Your task to perform on an android device: all mails in gmail Image 0: 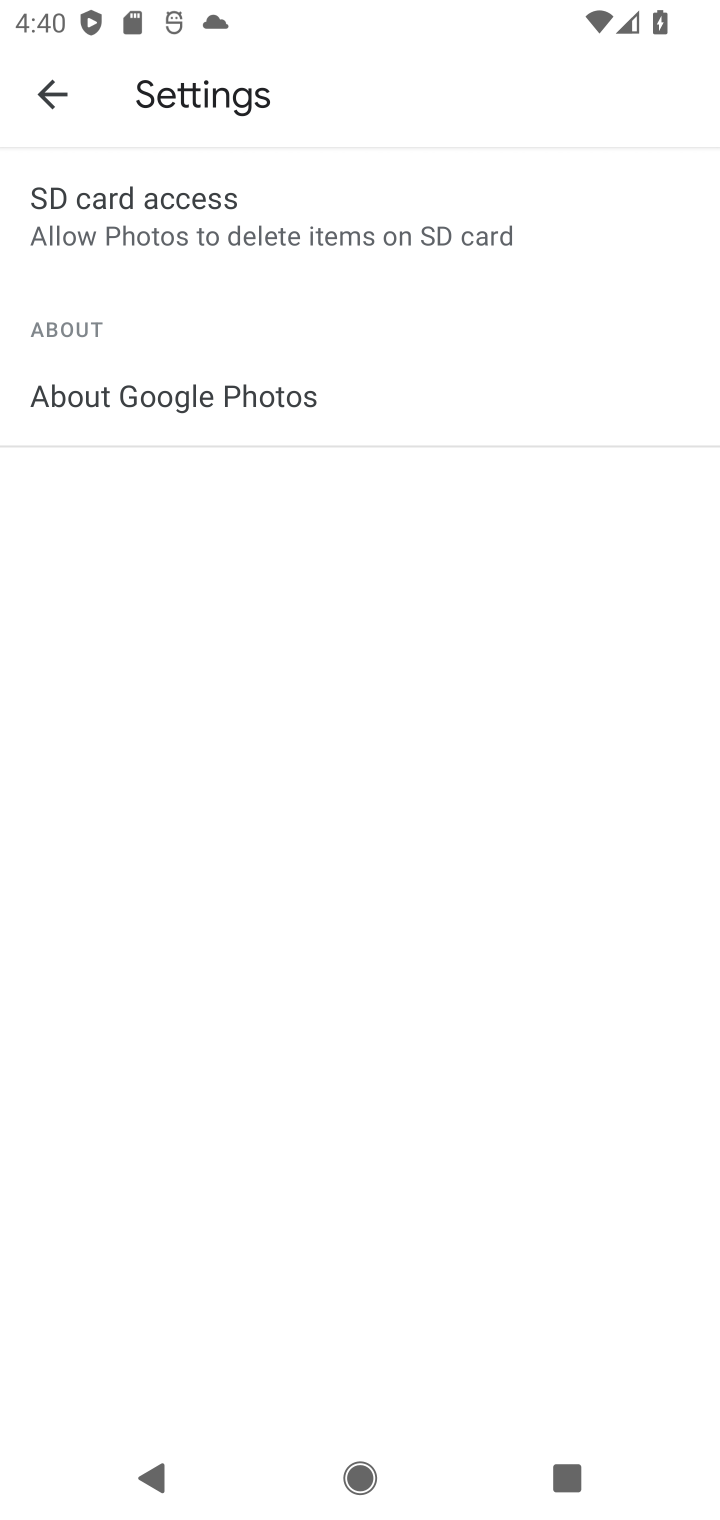
Step 0: press home button
Your task to perform on an android device: all mails in gmail Image 1: 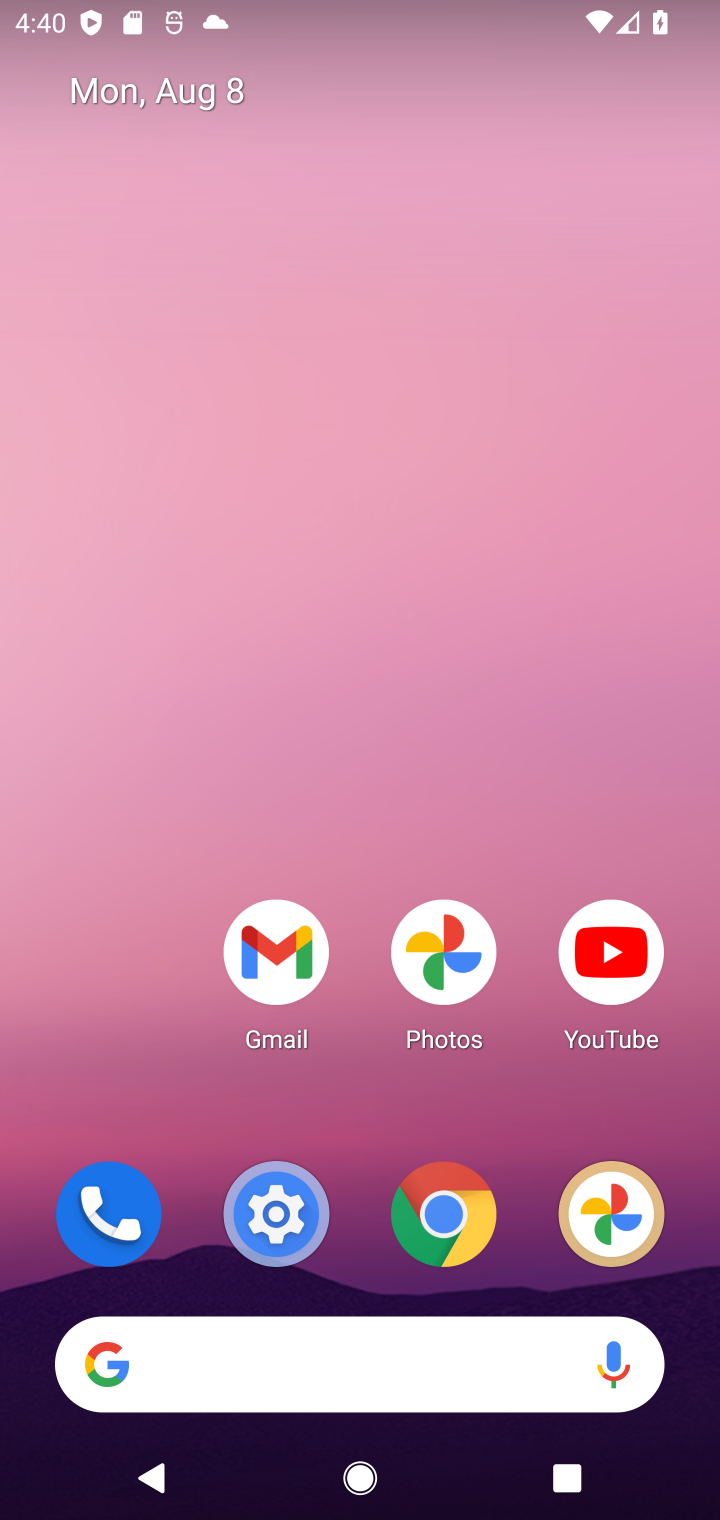
Step 1: drag from (354, 1258) to (354, 126)
Your task to perform on an android device: all mails in gmail Image 2: 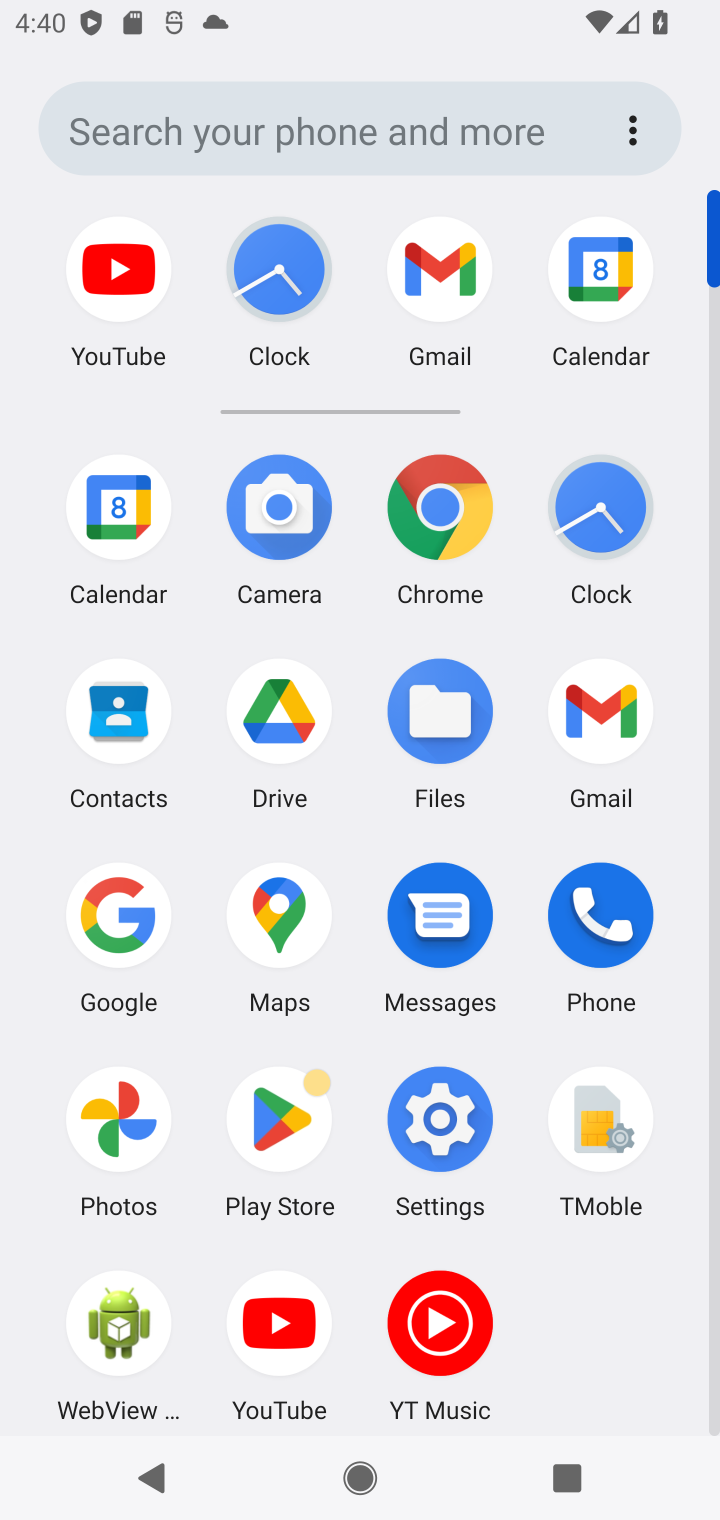
Step 2: click (594, 721)
Your task to perform on an android device: all mails in gmail Image 3: 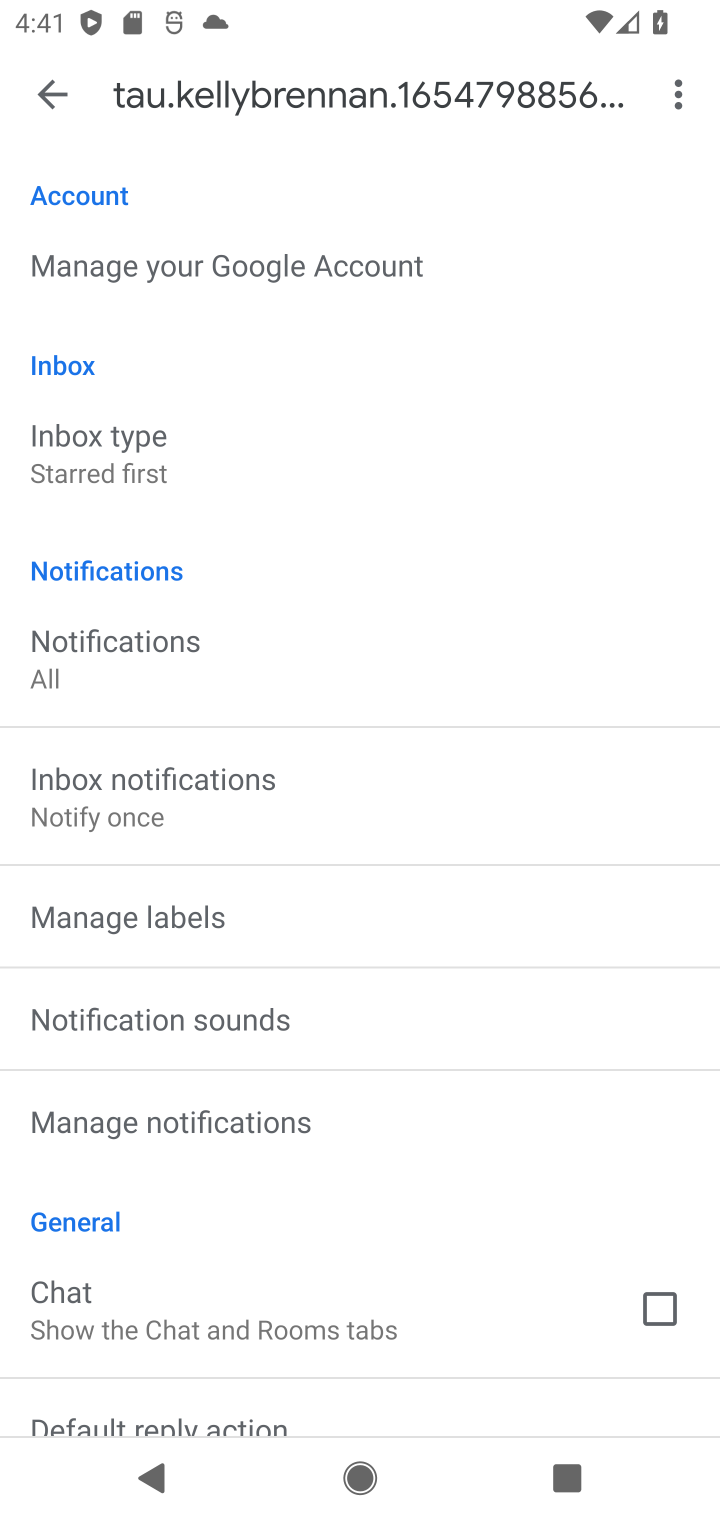
Step 3: click (41, 91)
Your task to perform on an android device: all mails in gmail Image 4: 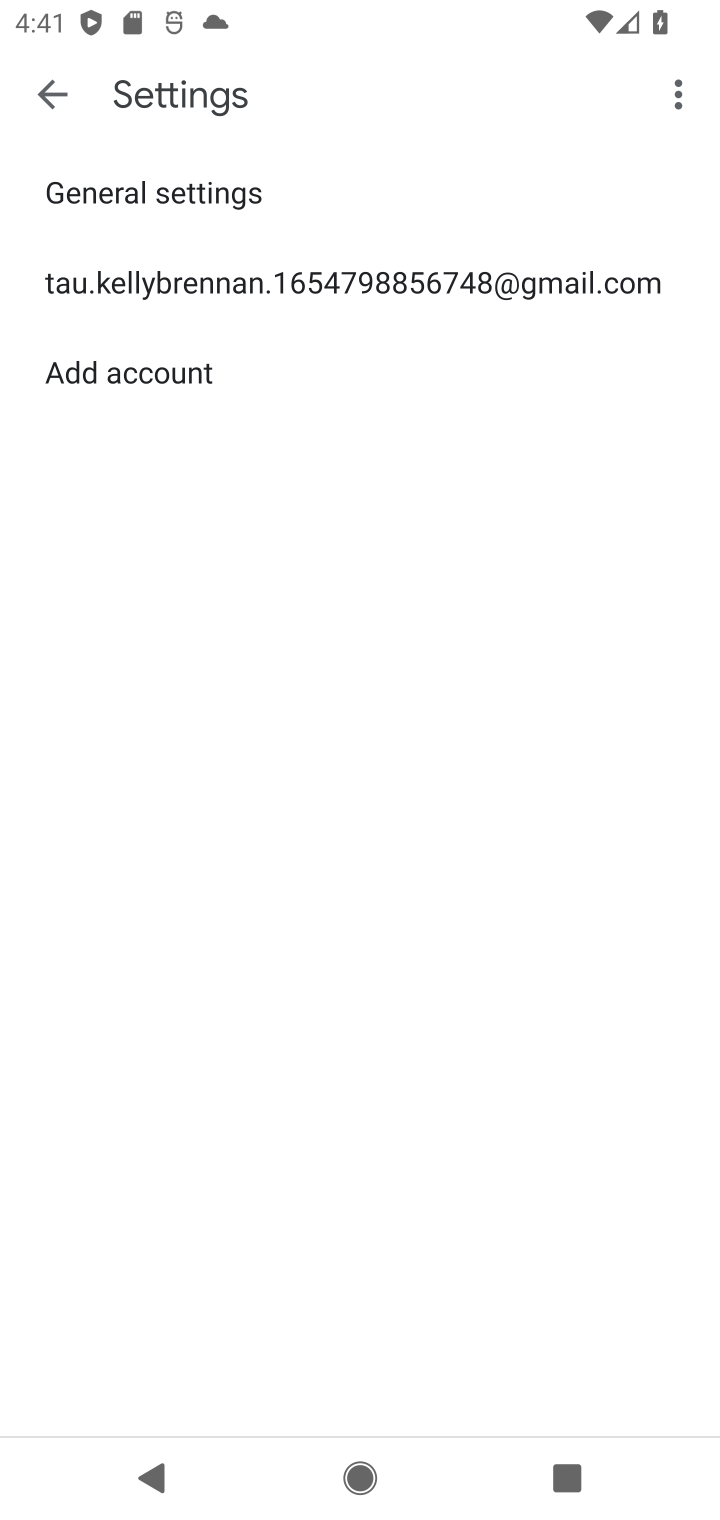
Step 4: click (53, 80)
Your task to perform on an android device: all mails in gmail Image 5: 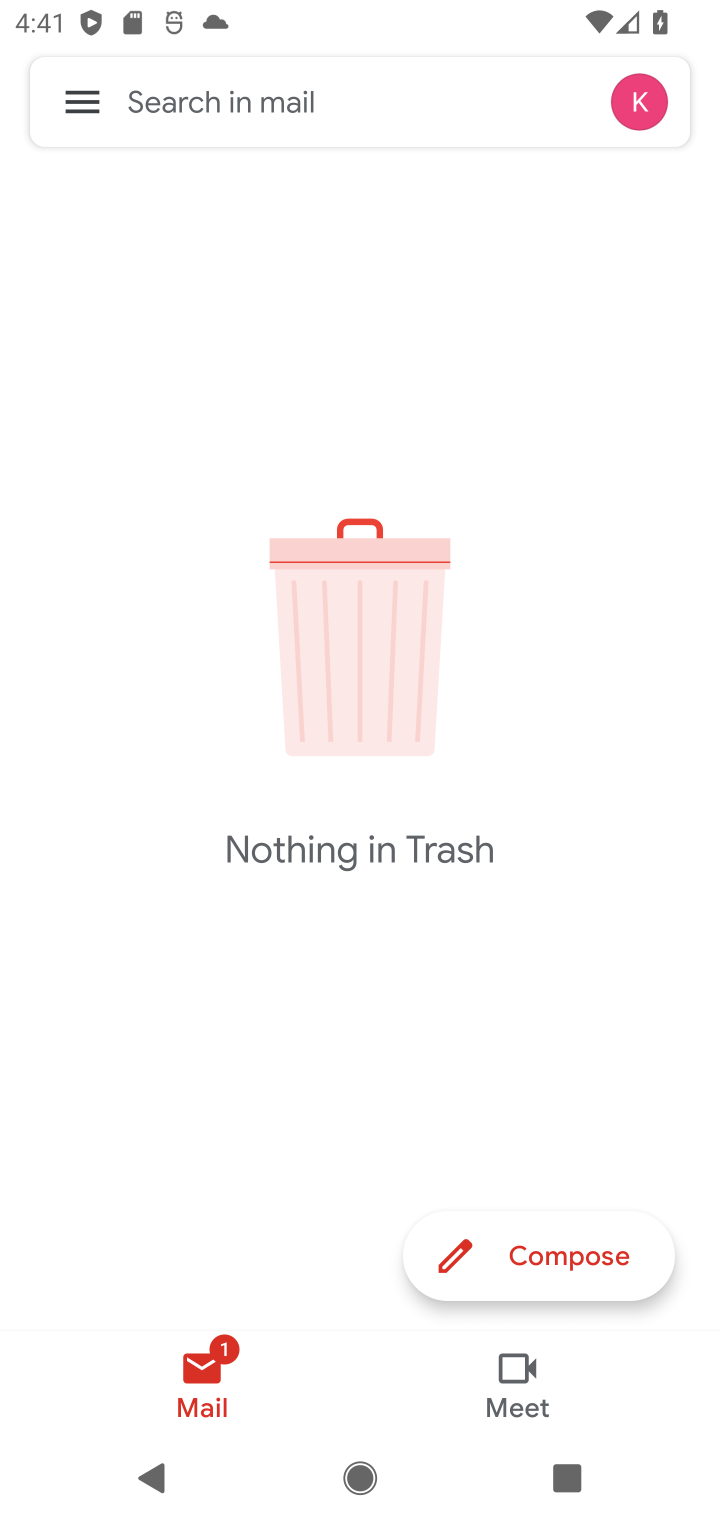
Step 5: click (86, 98)
Your task to perform on an android device: all mails in gmail Image 6: 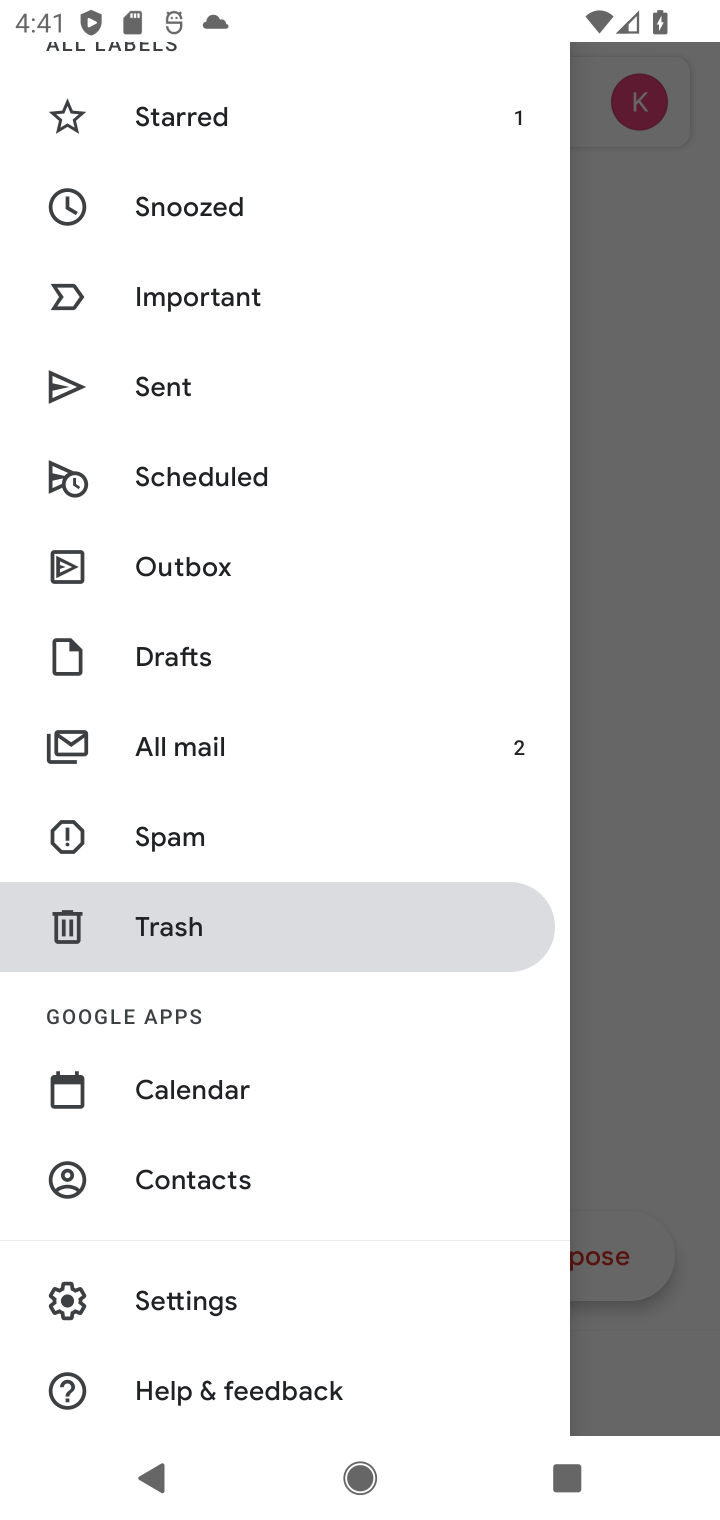
Step 6: drag from (202, 194) to (198, 698)
Your task to perform on an android device: all mails in gmail Image 7: 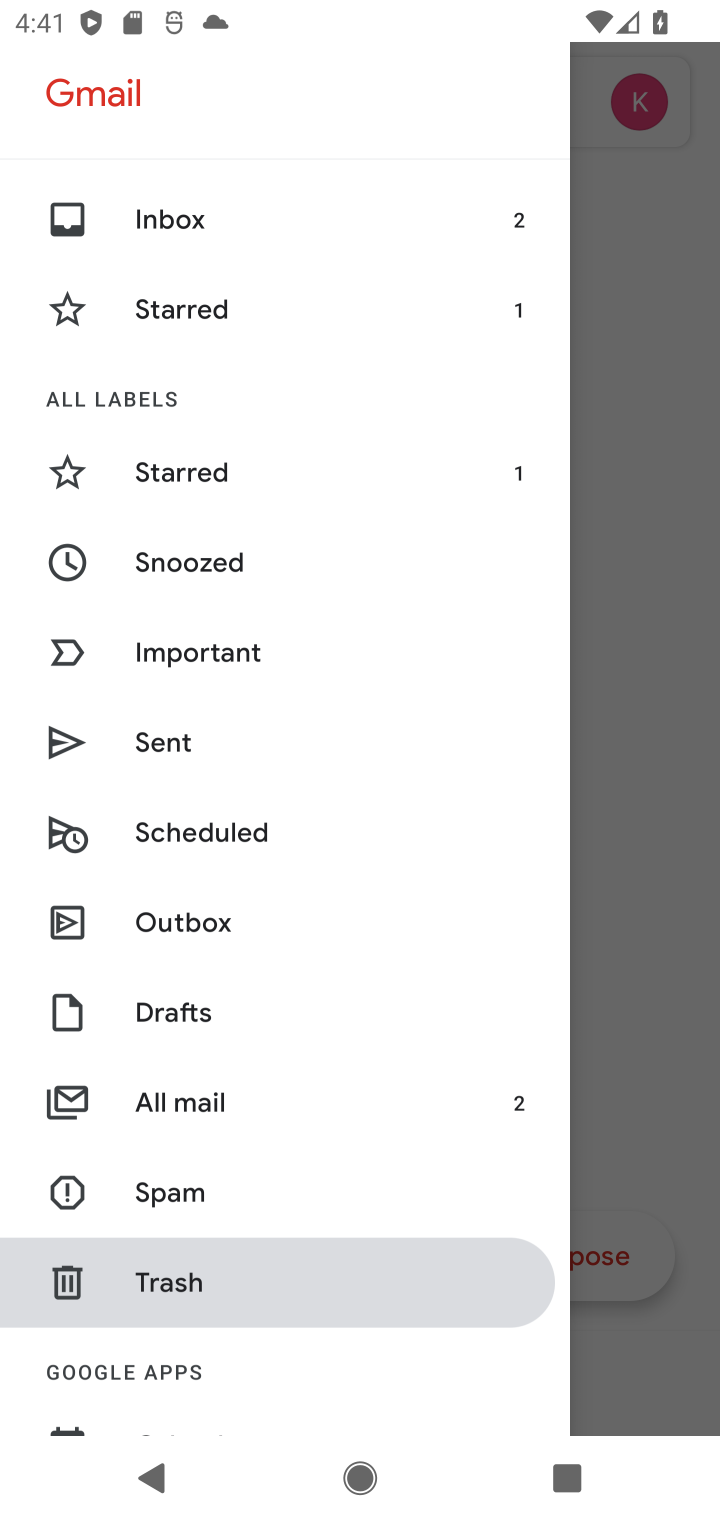
Step 7: click (156, 1107)
Your task to perform on an android device: all mails in gmail Image 8: 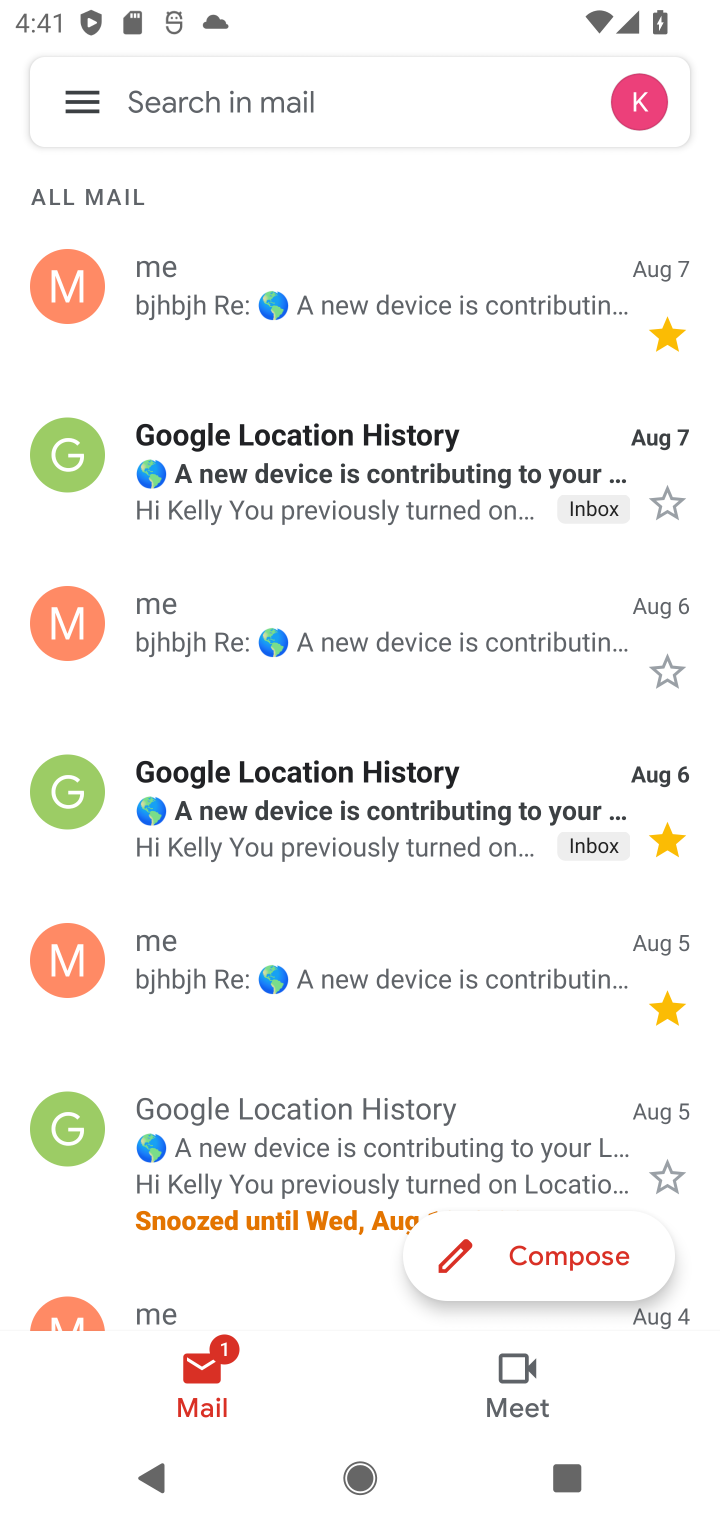
Step 8: task complete